Your task to perform on an android device: Open location settings Image 0: 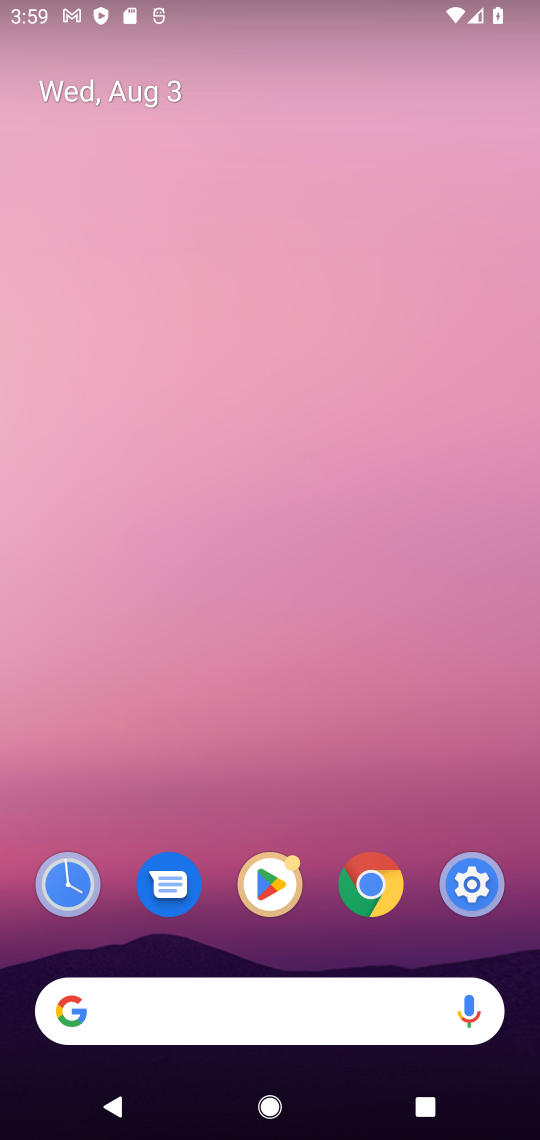
Step 0: drag from (193, 1039) to (423, 9)
Your task to perform on an android device: Open location settings Image 1: 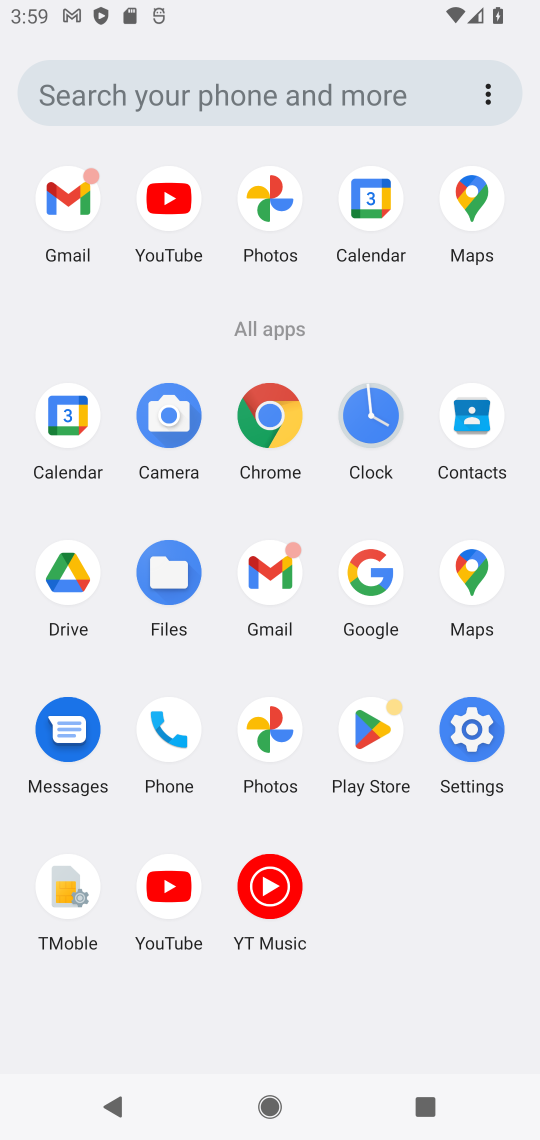
Step 1: click (464, 755)
Your task to perform on an android device: Open location settings Image 2: 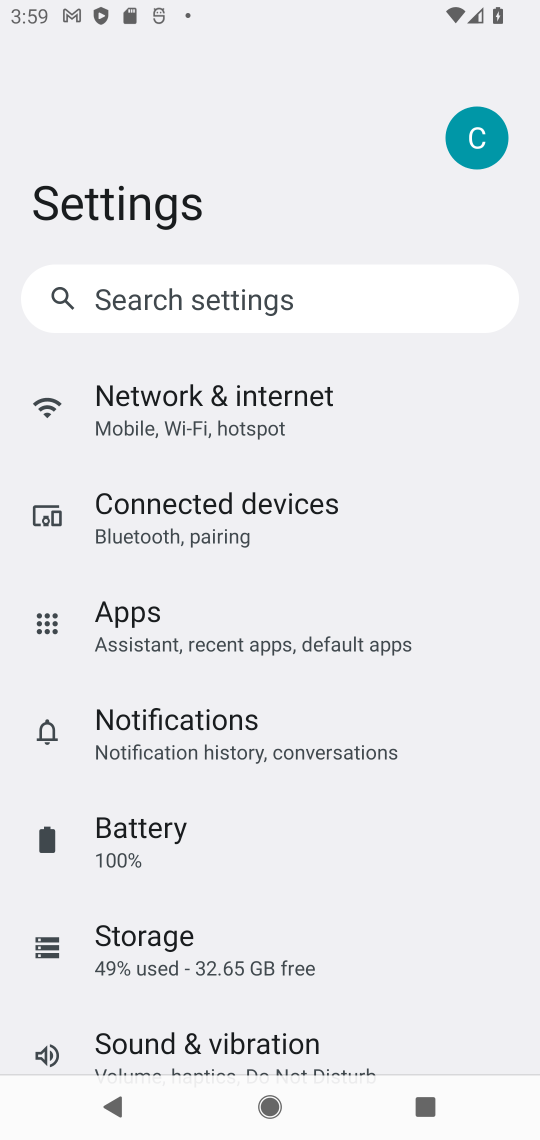
Step 2: drag from (206, 865) to (312, 336)
Your task to perform on an android device: Open location settings Image 3: 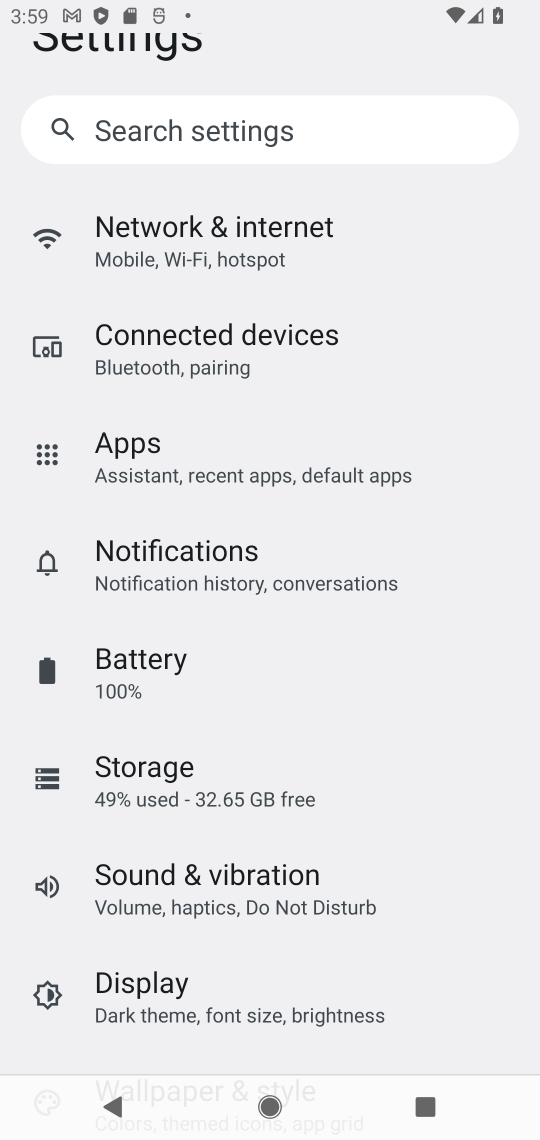
Step 3: drag from (204, 939) to (382, 284)
Your task to perform on an android device: Open location settings Image 4: 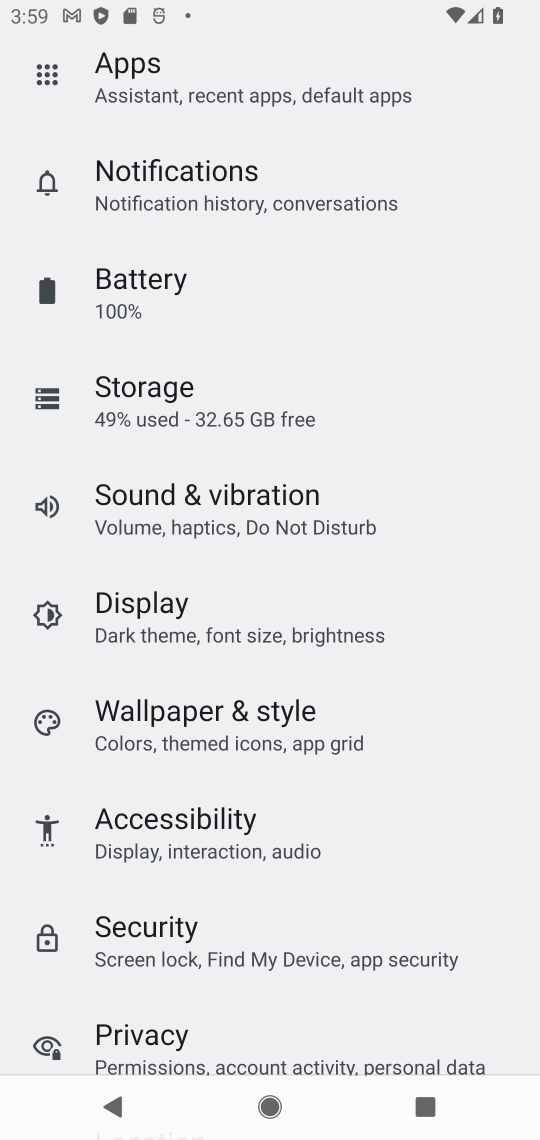
Step 4: drag from (204, 865) to (388, 272)
Your task to perform on an android device: Open location settings Image 5: 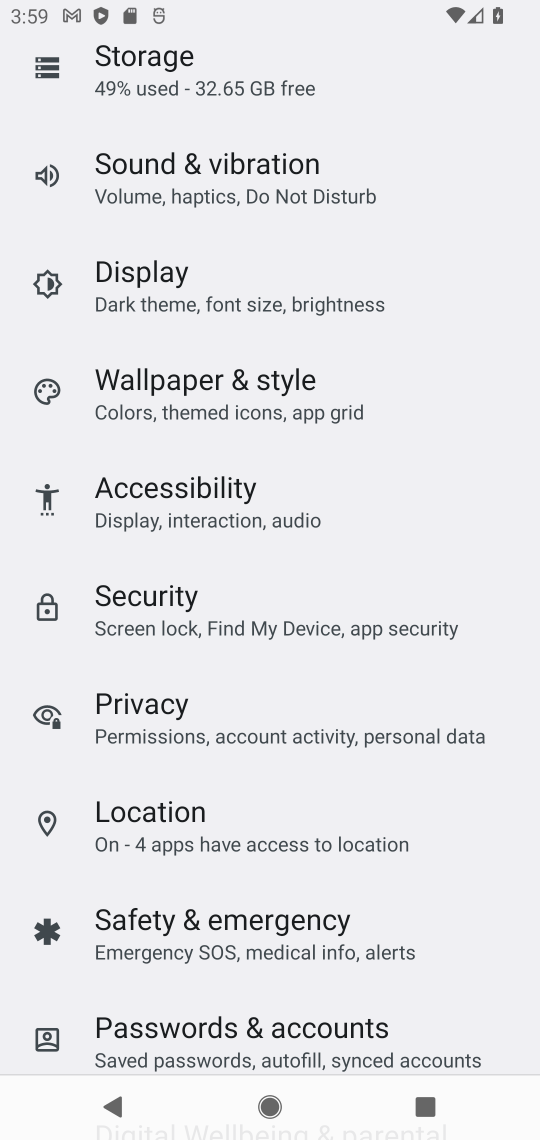
Step 5: click (98, 833)
Your task to perform on an android device: Open location settings Image 6: 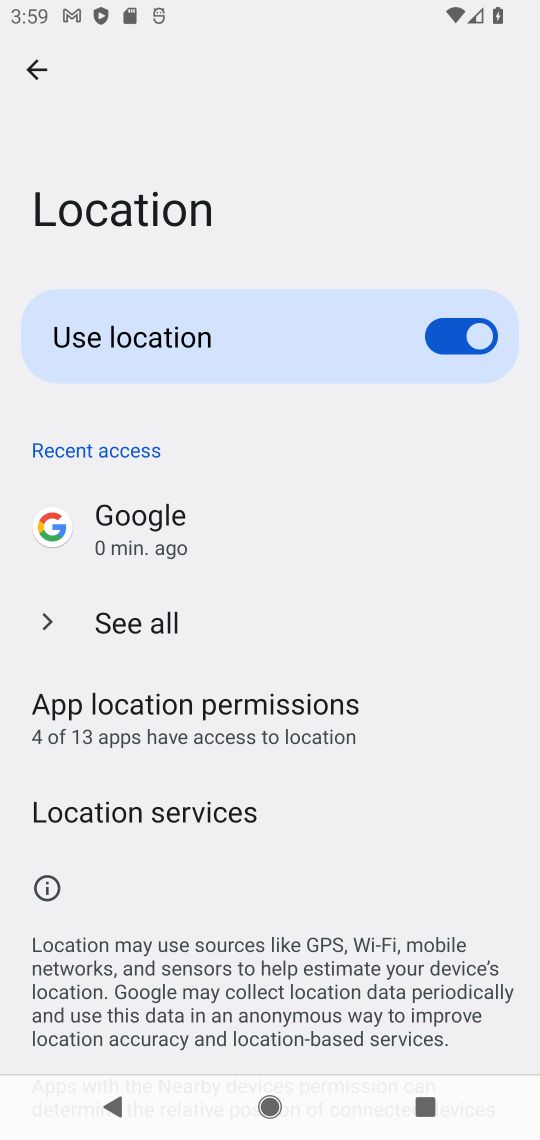
Step 6: task complete